Your task to perform on an android device: Go to sound settings Image 0: 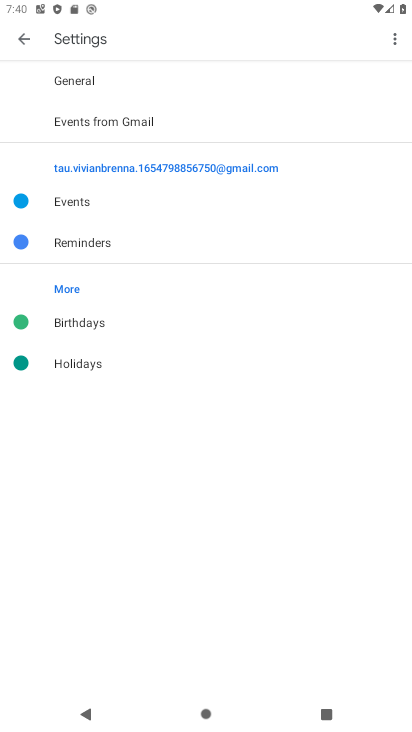
Step 0: press home button
Your task to perform on an android device: Go to sound settings Image 1: 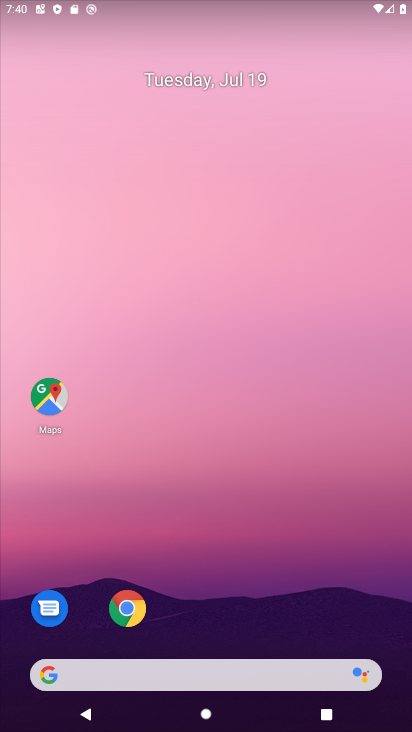
Step 1: drag from (126, 671) to (329, 139)
Your task to perform on an android device: Go to sound settings Image 2: 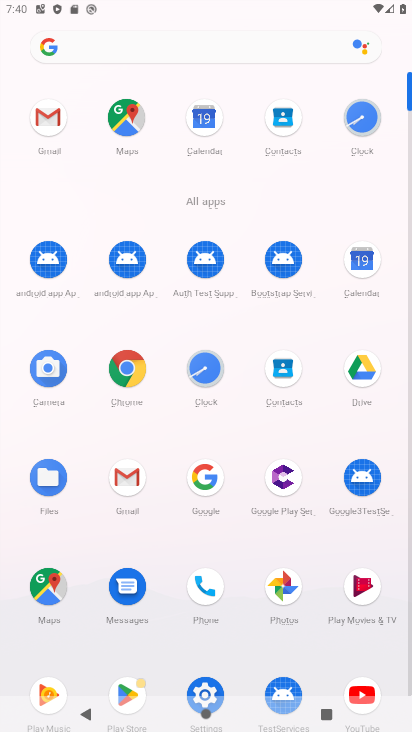
Step 2: click (199, 682)
Your task to perform on an android device: Go to sound settings Image 3: 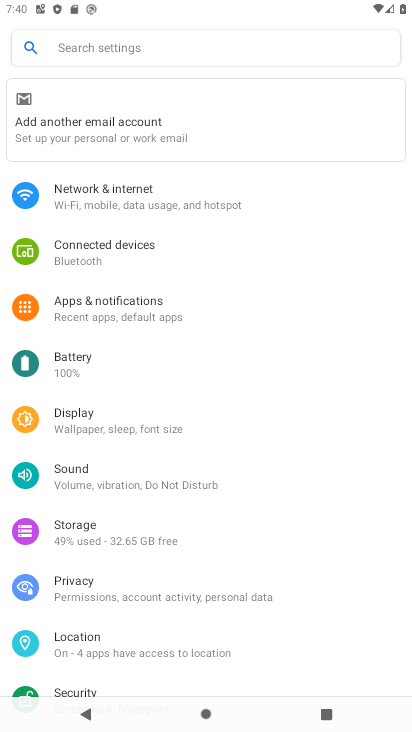
Step 3: click (101, 479)
Your task to perform on an android device: Go to sound settings Image 4: 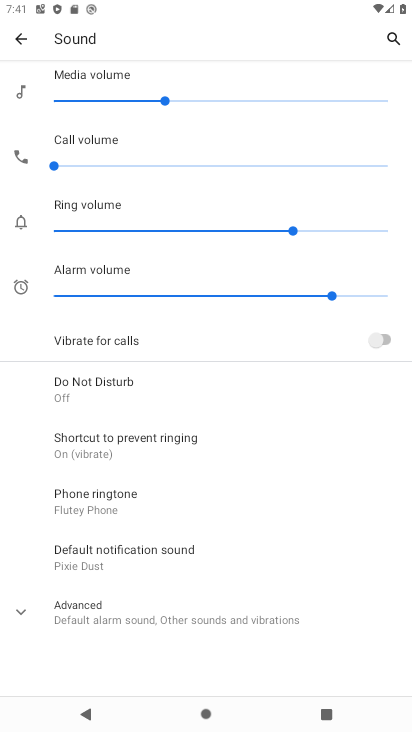
Step 4: task complete